Your task to perform on an android device: stop showing notifications on the lock screen Image 0: 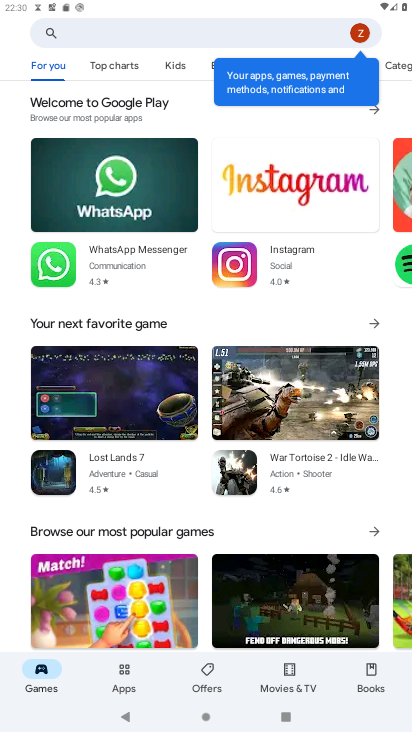
Step 0: press home button
Your task to perform on an android device: stop showing notifications on the lock screen Image 1: 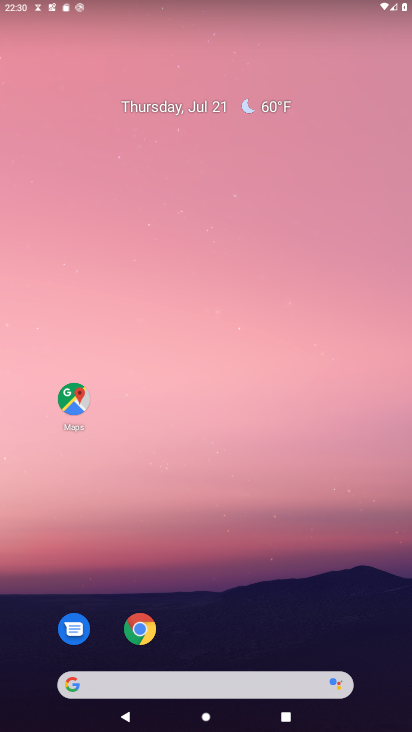
Step 1: drag from (197, 618) to (217, 167)
Your task to perform on an android device: stop showing notifications on the lock screen Image 2: 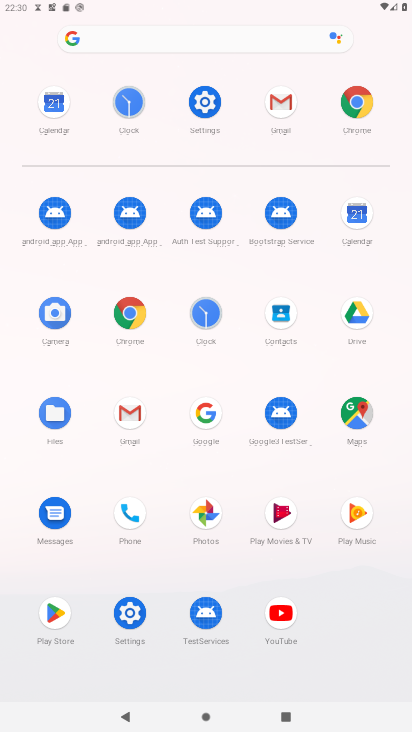
Step 2: click (204, 96)
Your task to perform on an android device: stop showing notifications on the lock screen Image 3: 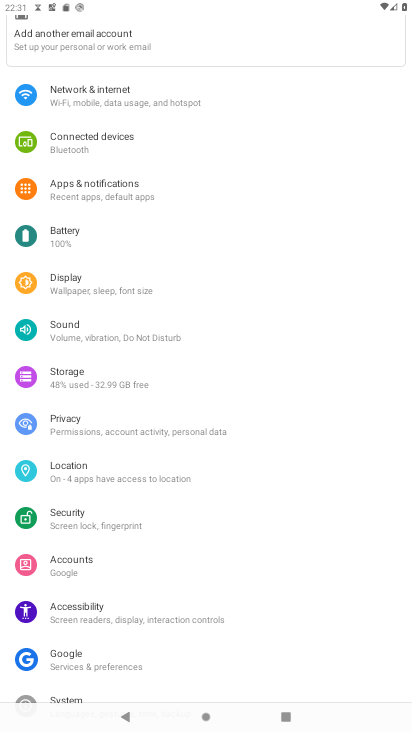
Step 3: click (105, 197)
Your task to perform on an android device: stop showing notifications on the lock screen Image 4: 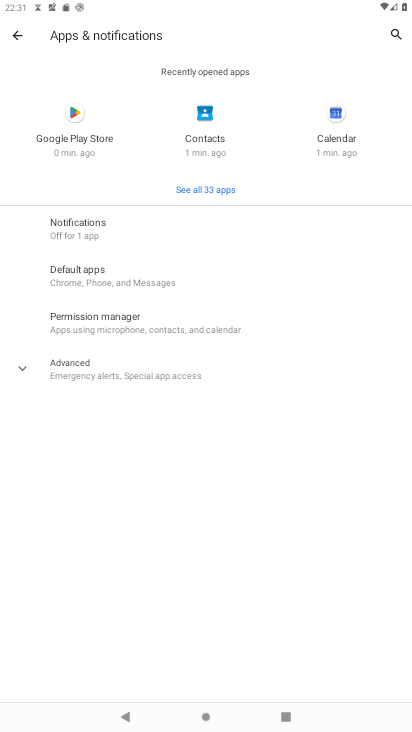
Step 4: click (101, 235)
Your task to perform on an android device: stop showing notifications on the lock screen Image 5: 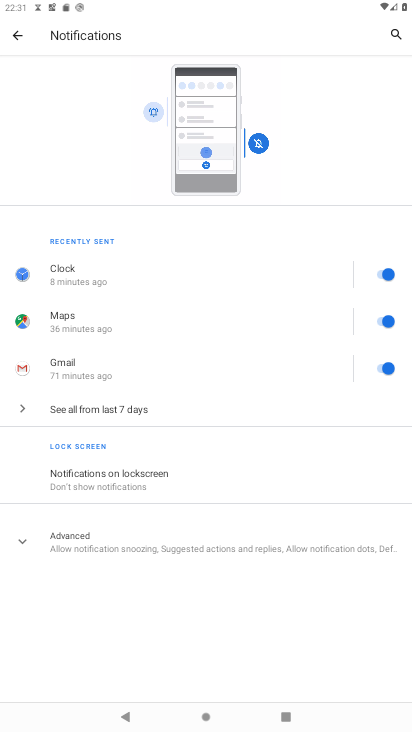
Step 5: click (136, 486)
Your task to perform on an android device: stop showing notifications on the lock screen Image 6: 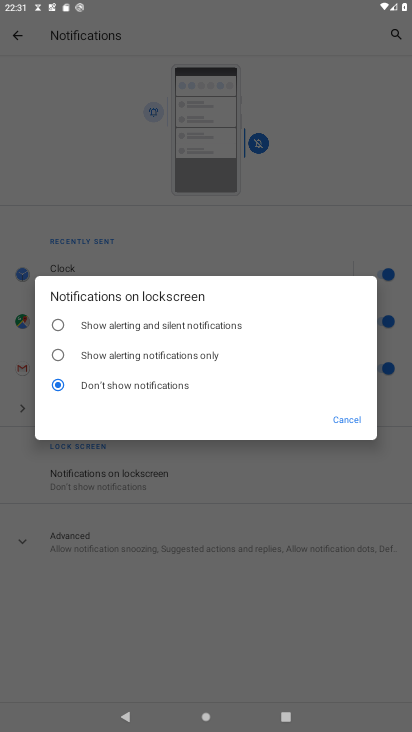
Step 6: task complete